Your task to perform on an android device: open app "Messages" Image 0: 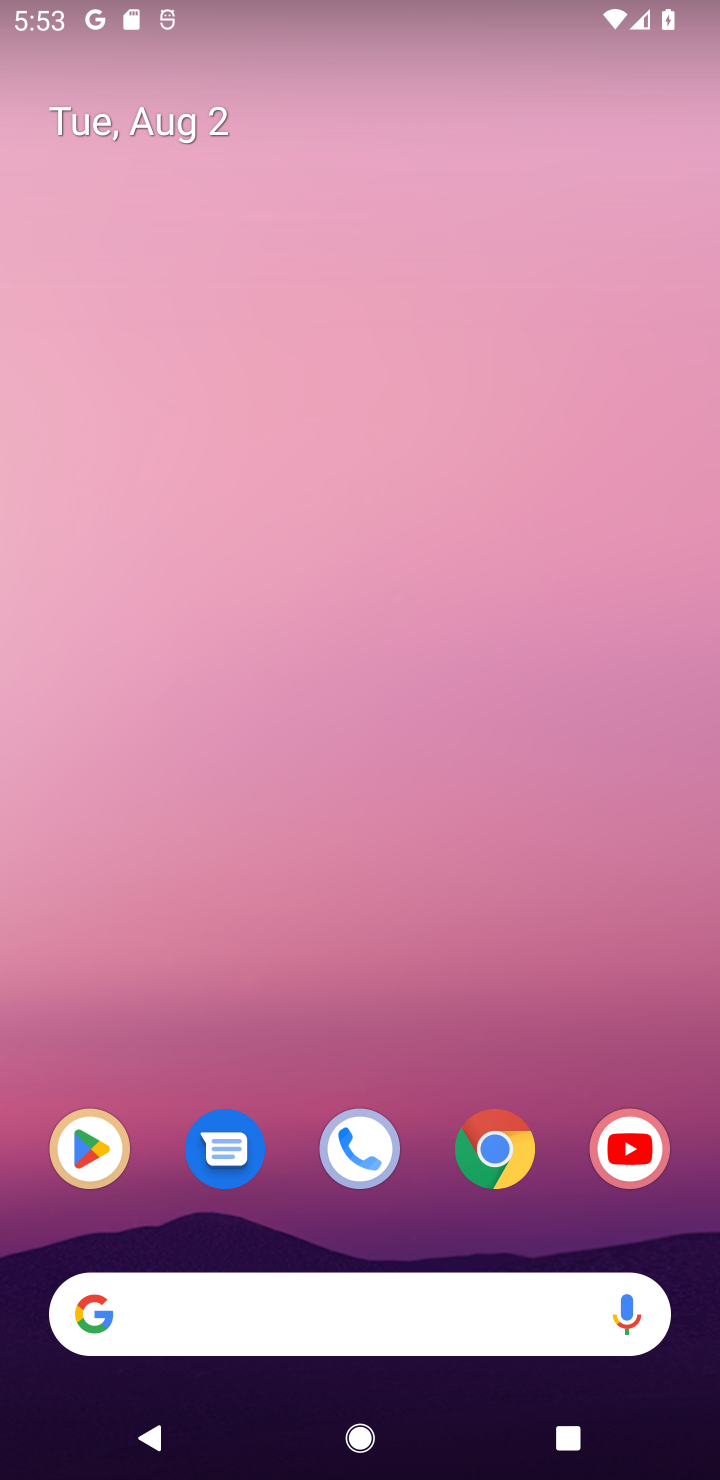
Step 0: drag from (430, 1220) to (532, 2)
Your task to perform on an android device: open app "Messages" Image 1: 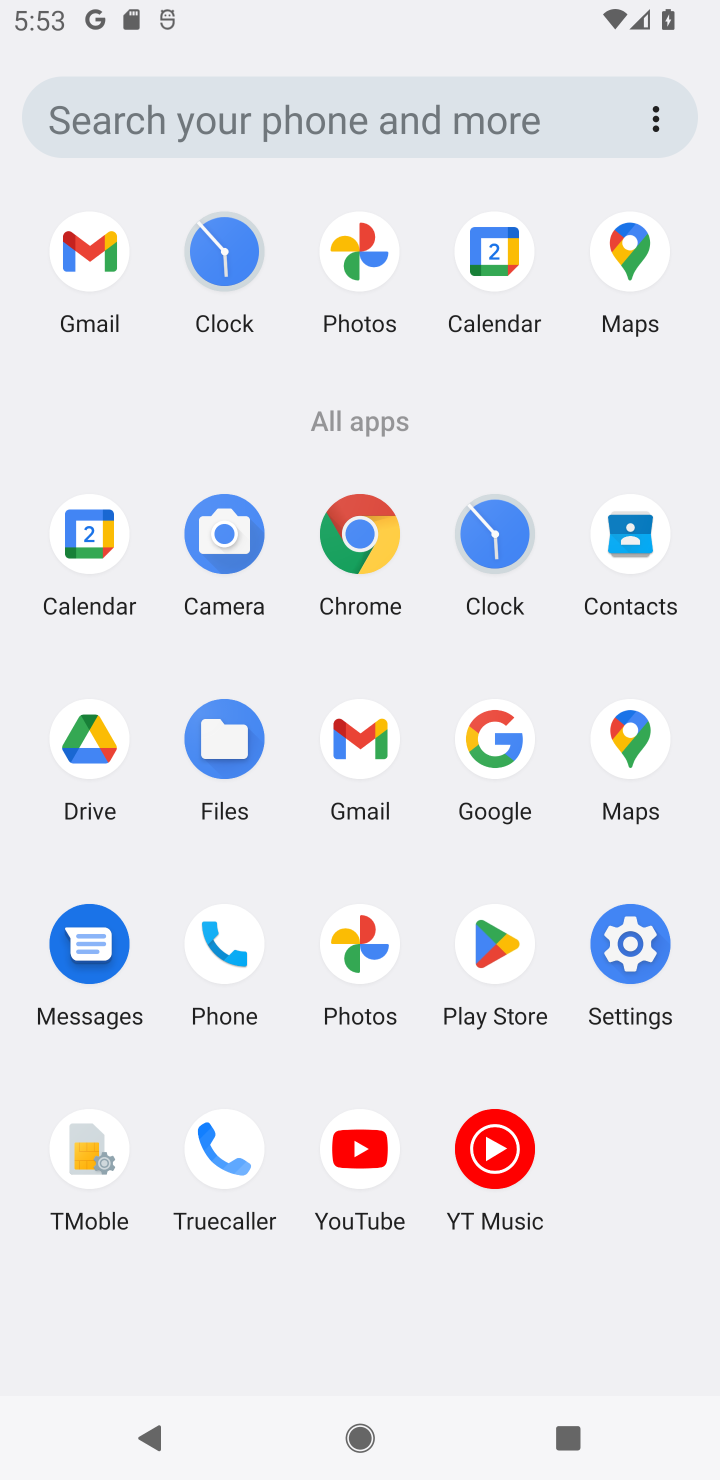
Step 1: click (126, 941)
Your task to perform on an android device: open app "Messages" Image 2: 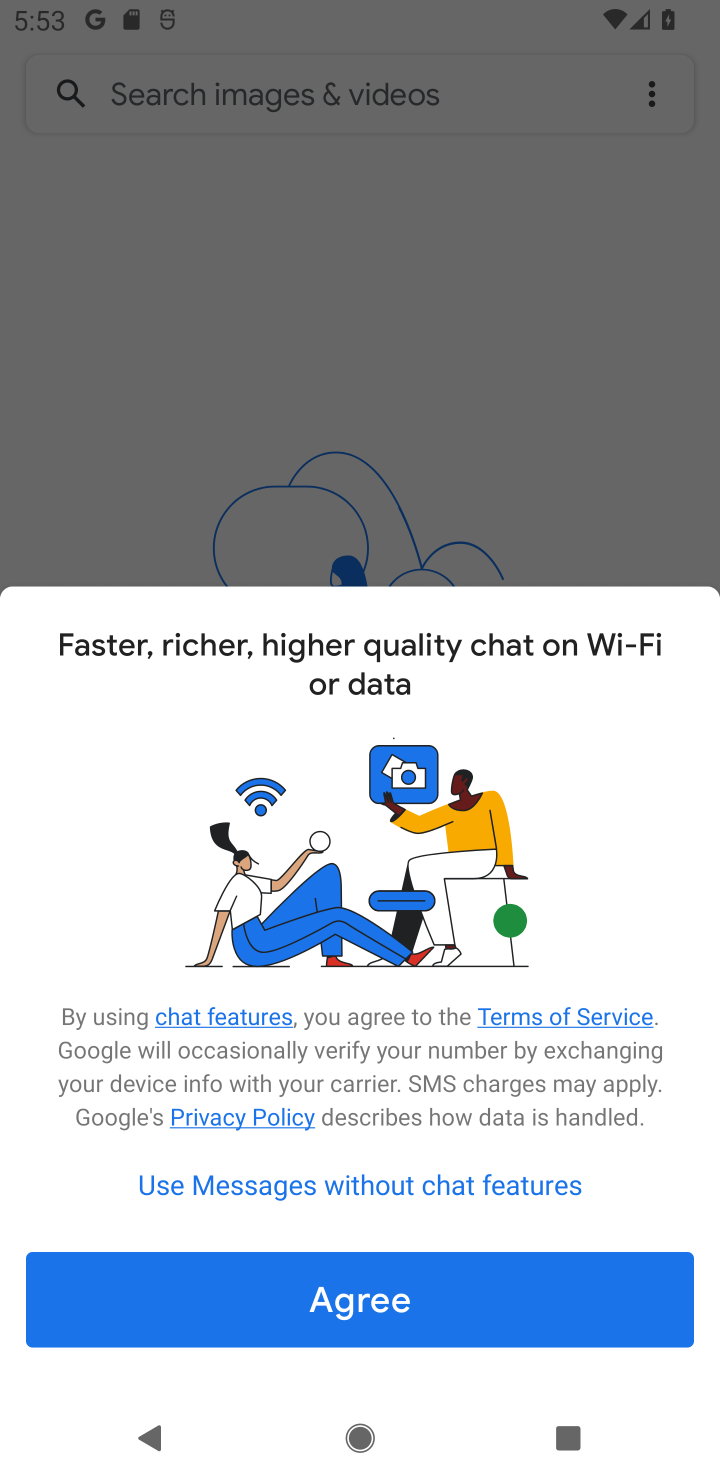
Step 2: click (385, 1291)
Your task to perform on an android device: open app "Messages" Image 3: 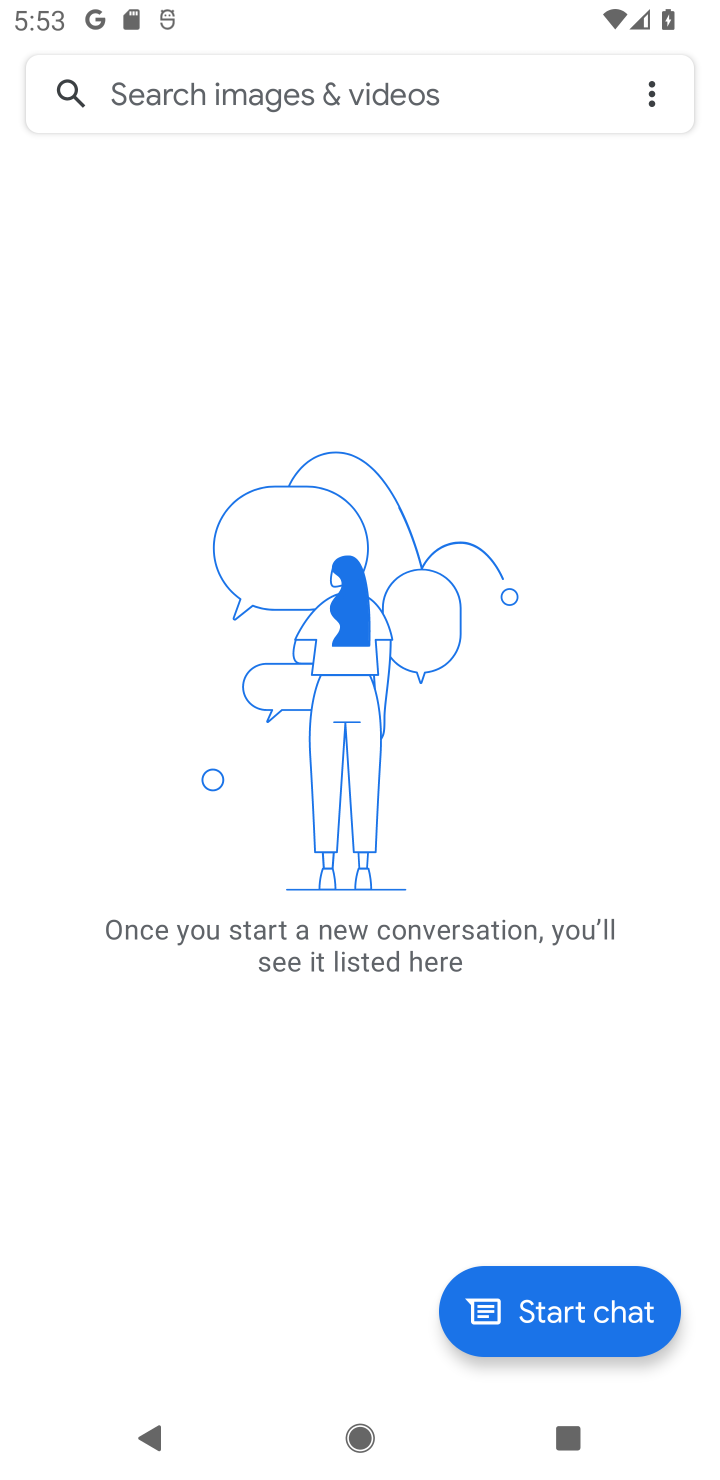
Step 3: task complete